Your task to perform on an android device: turn vacation reply on in the gmail app Image 0: 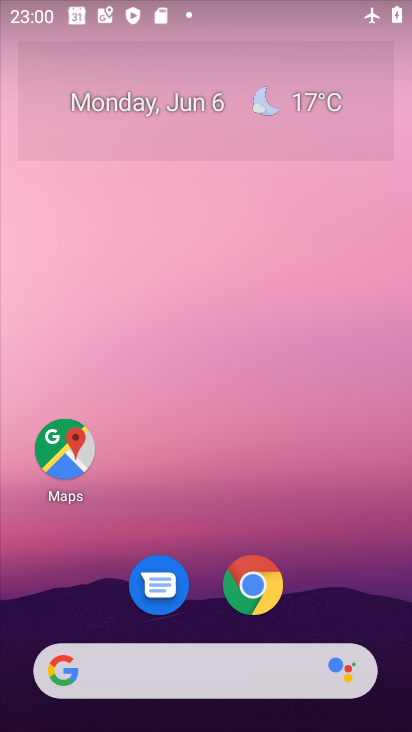
Step 0: press home button
Your task to perform on an android device: turn vacation reply on in the gmail app Image 1: 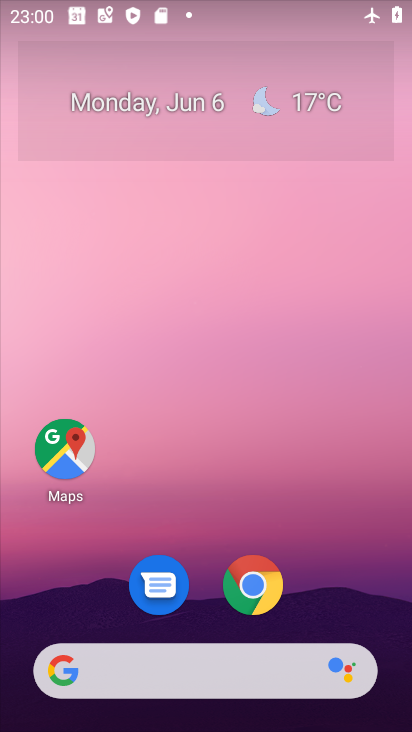
Step 1: drag from (180, 460) to (128, 0)
Your task to perform on an android device: turn vacation reply on in the gmail app Image 2: 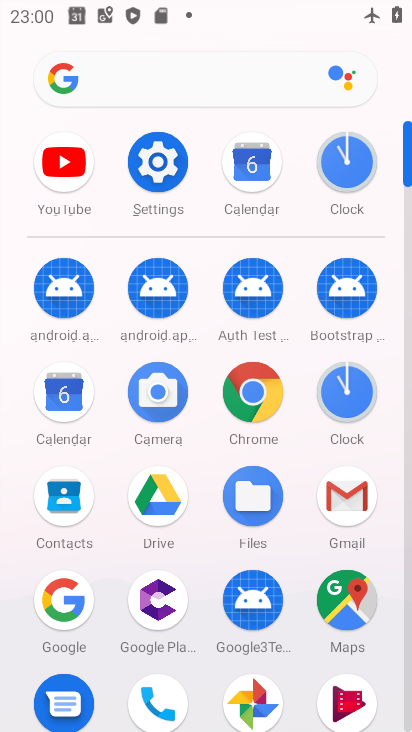
Step 2: click (340, 484)
Your task to perform on an android device: turn vacation reply on in the gmail app Image 3: 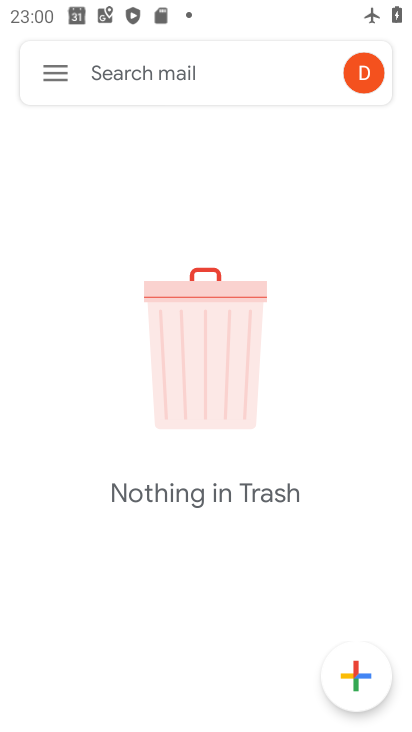
Step 3: click (57, 74)
Your task to perform on an android device: turn vacation reply on in the gmail app Image 4: 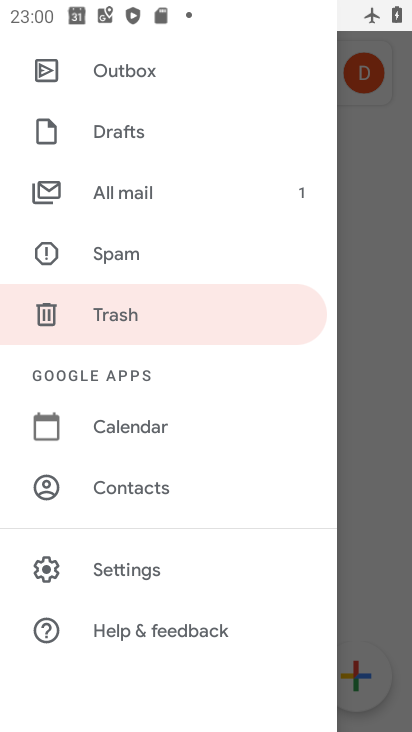
Step 4: click (162, 558)
Your task to perform on an android device: turn vacation reply on in the gmail app Image 5: 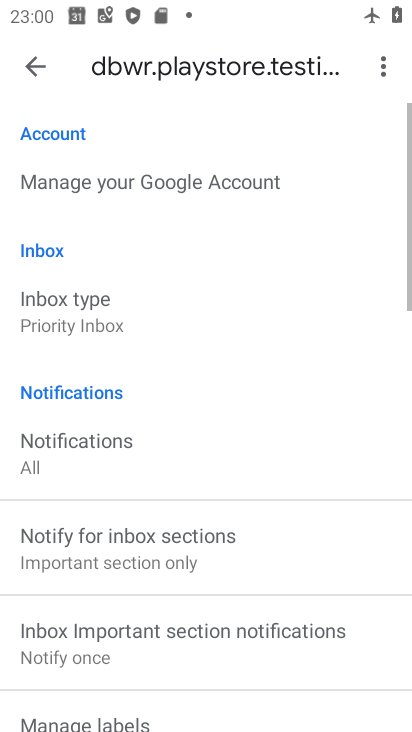
Step 5: drag from (283, 556) to (219, 34)
Your task to perform on an android device: turn vacation reply on in the gmail app Image 6: 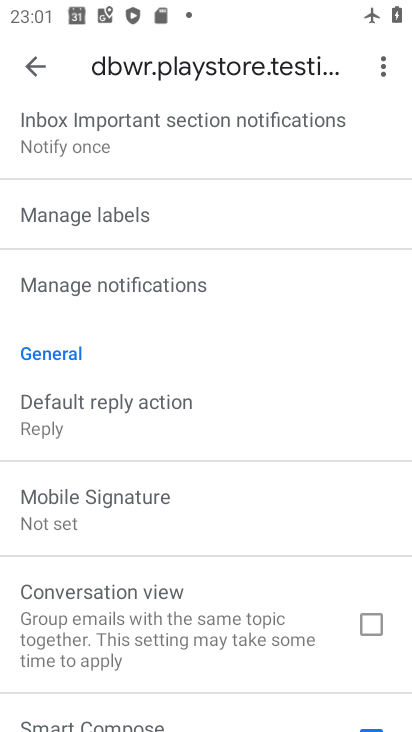
Step 6: drag from (238, 502) to (241, 42)
Your task to perform on an android device: turn vacation reply on in the gmail app Image 7: 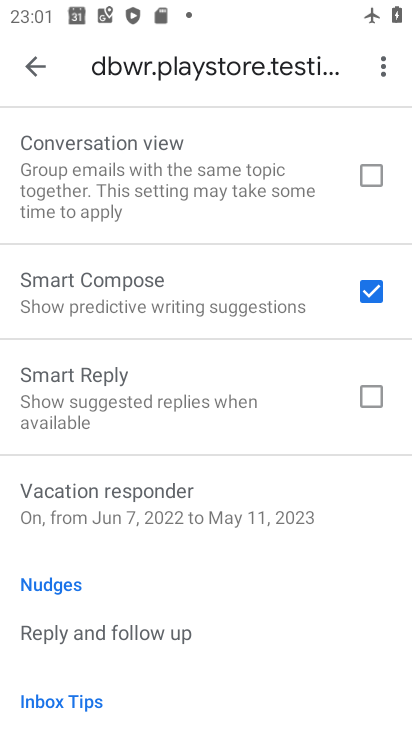
Step 7: click (230, 502)
Your task to perform on an android device: turn vacation reply on in the gmail app Image 8: 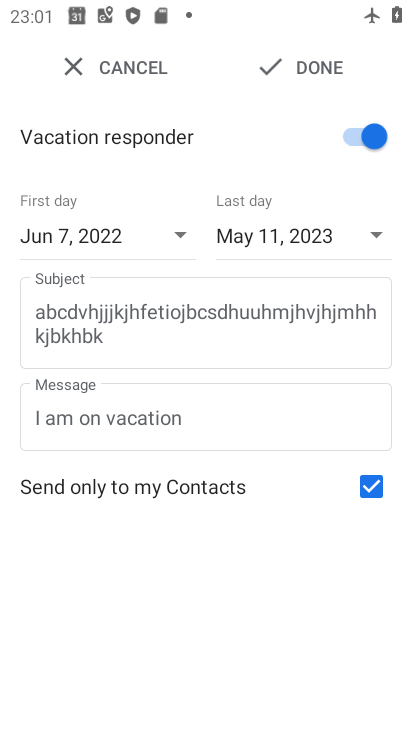
Step 8: task complete